Your task to perform on an android device: change the clock display to analog Image 0: 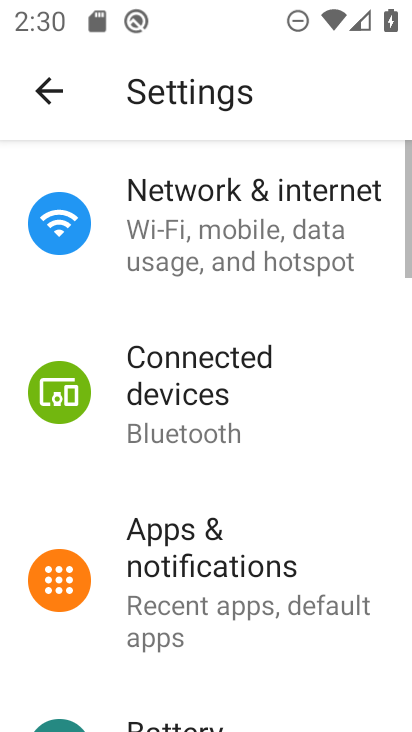
Step 0: press home button
Your task to perform on an android device: change the clock display to analog Image 1: 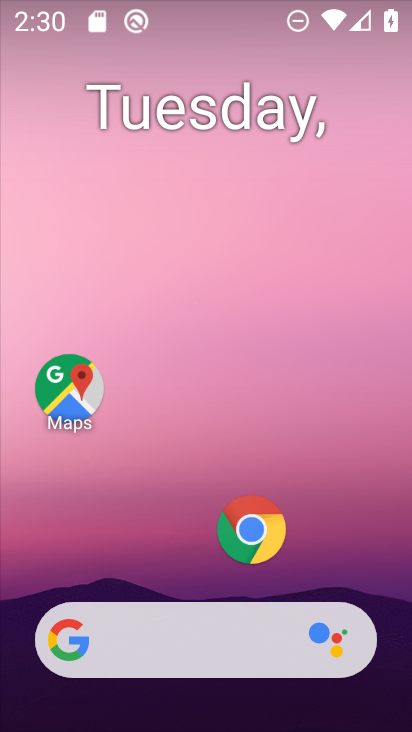
Step 1: drag from (292, 675) to (310, 44)
Your task to perform on an android device: change the clock display to analog Image 2: 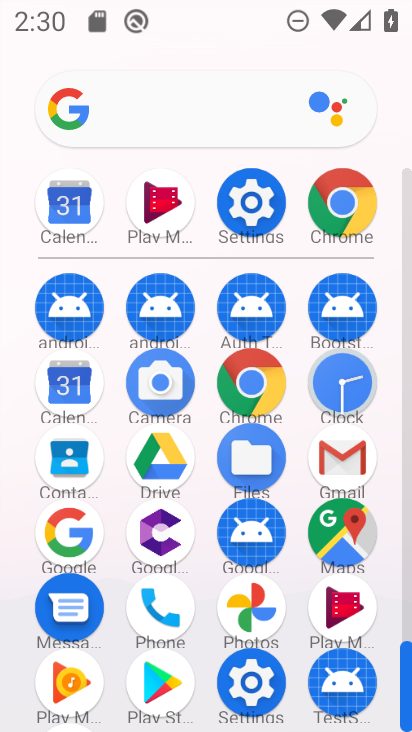
Step 2: click (367, 386)
Your task to perform on an android device: change the clock display to analog Image 3: 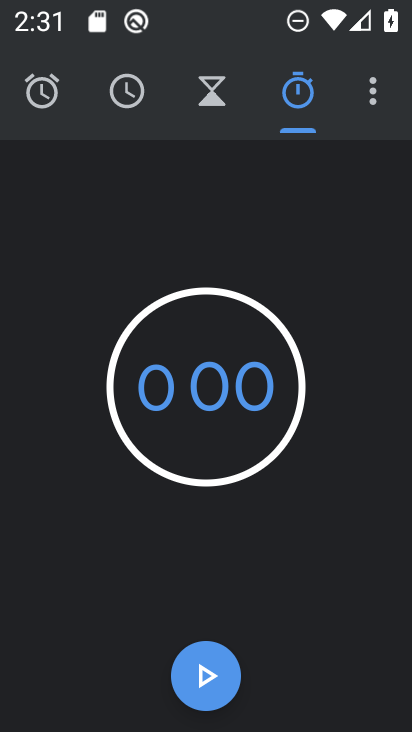
Step 3: click (361, 97)
Your task to perform on an android device: change the clock display to analog Image 4: 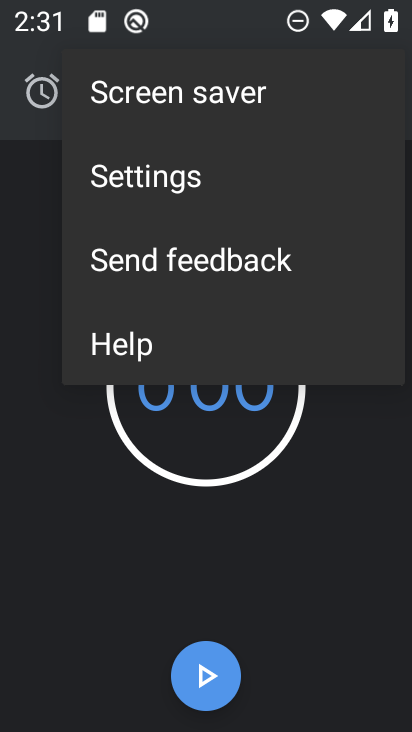
Step 4: click (197, 172)
Your task to perform on an android device: change the clock display to analog Image 5: 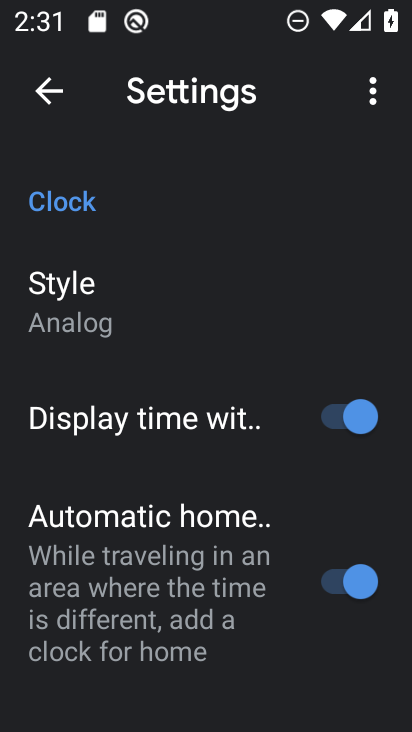
Step 5: click (63, 322)
Your task to perform on an android device: change the clock display to analog Image 6: 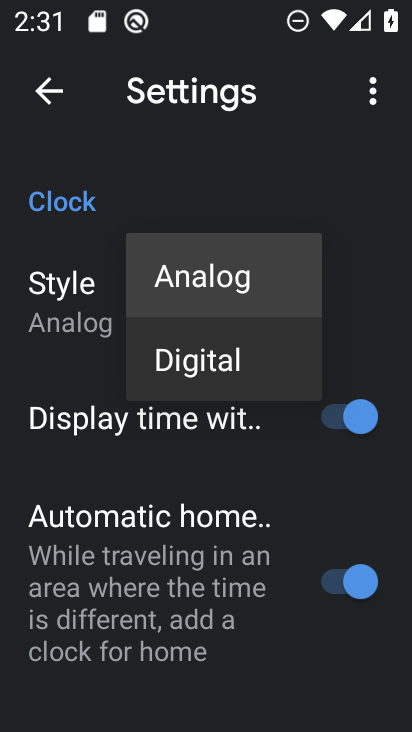
Step 6: click (194, 298)
Your task to perform on an android device: change the clock display to analog Image 7: 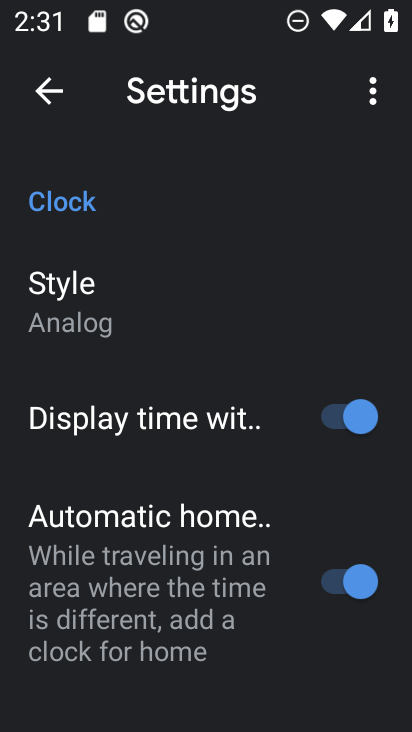
Step 7: task complete